Your task to perform on an android device: Open privacy settings Image 0: 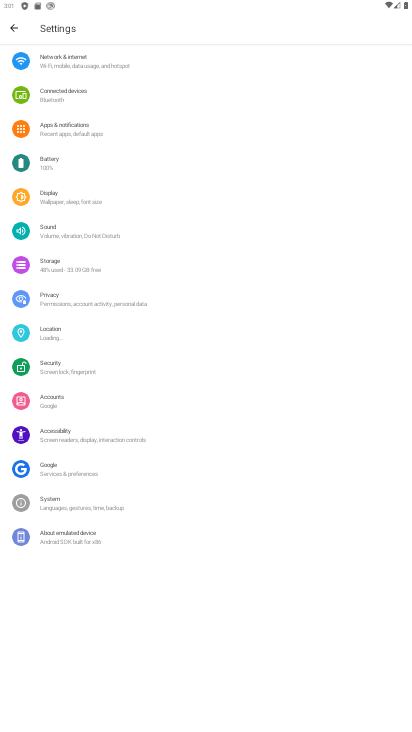
Step 0: press home button
Your task to perform on an android device: Open privacy settings Image 1: 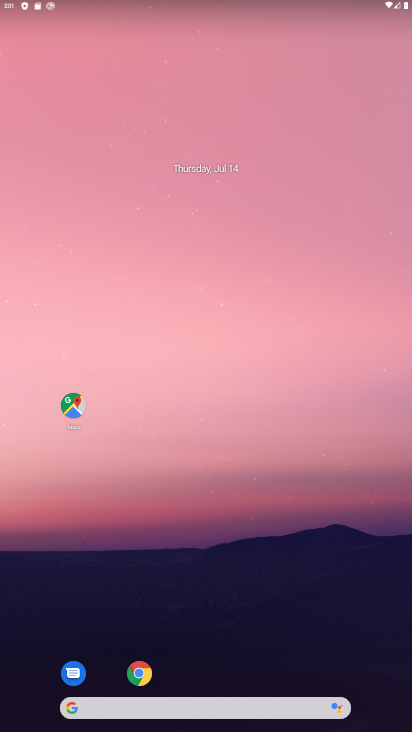
Step 1: drag from (212, 673) to (252, 180)
Your task to perform on an android device: Open privacy settings Image 2: 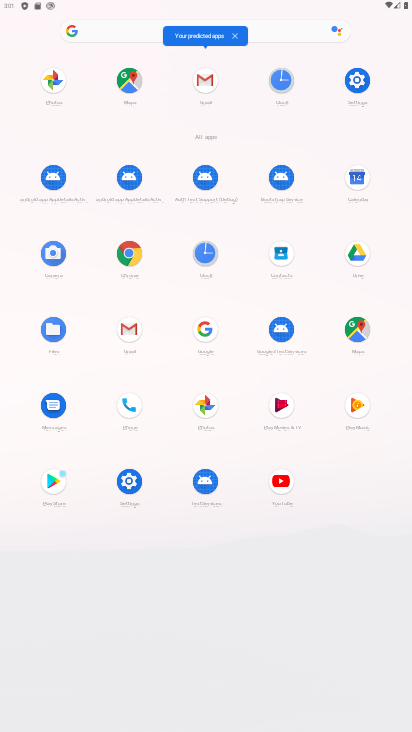
Step 2: click (129, 256)
Your task to perform on an android device: Open privacy settings Image 3: 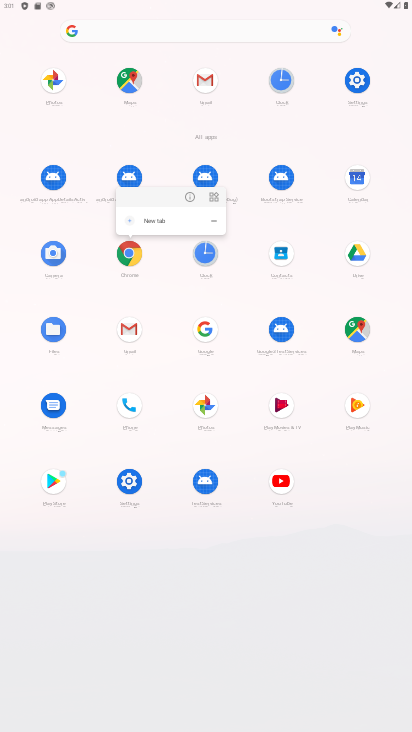
Step 3: click (136, 257)
Your task to perform on an android device: Open privacy settings Image 4: 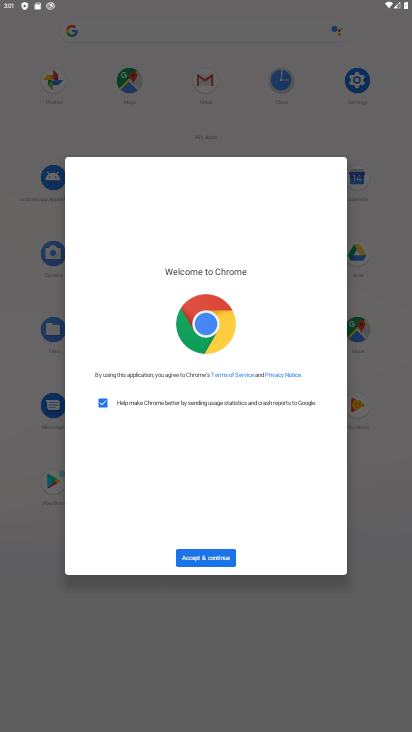
Step 4: click (205, 562)
Your task to perform on an android device: Open privacy settings Image 5: 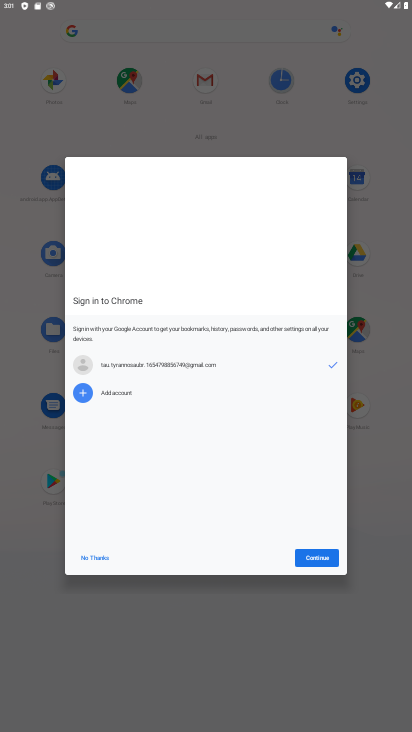
Step 5: click (335, 557)
Your task to perform on an android device: Open privacy settings Image 6: 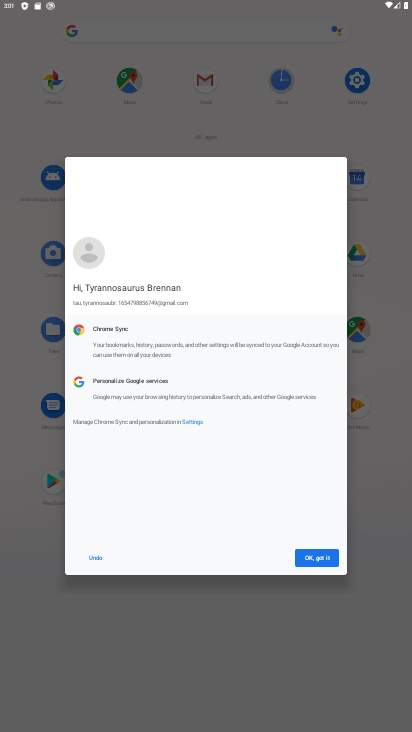
Step 6: click (326, 556)
Your task to perform on an android device: Open privacy settings Image 7: 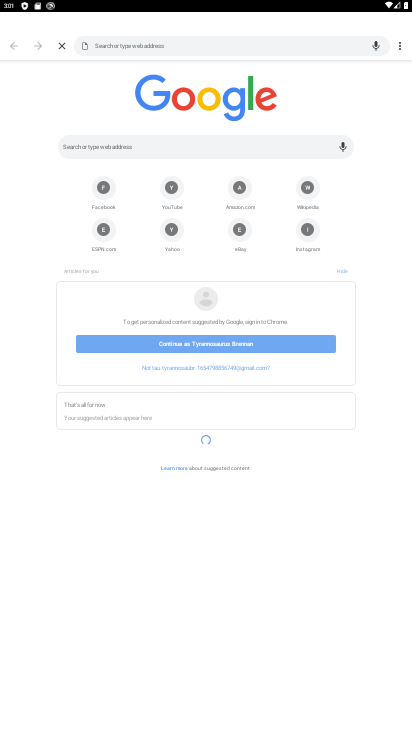
Step 7: click (398, 49)
Your task to perform on an android device: Open privacy settings Image 8: 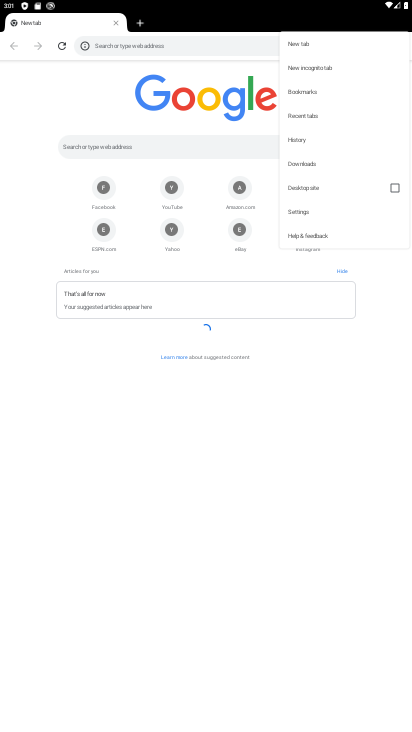
Step 8: click (305, 214)
Your task to perform on an android device: Open privacy settings Image 9: 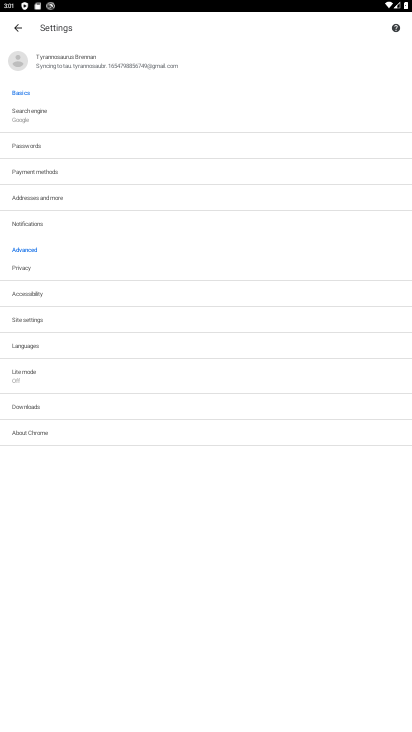
Step 9: click (30, 267)
Your task to perform on an android device: Open privacy settings Image 10: 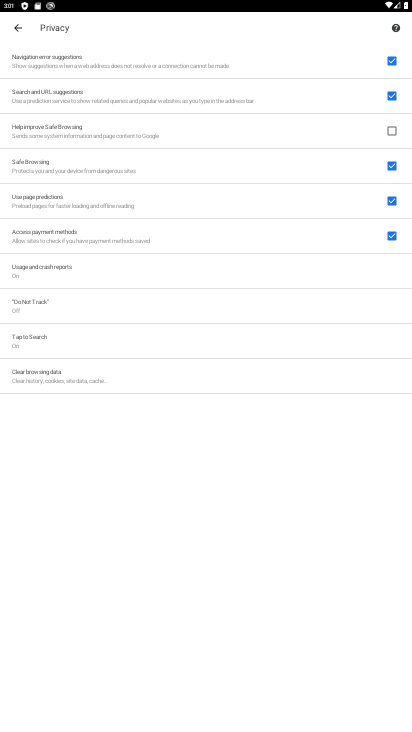
Step 10: task complete